Your task to perform on an android device: stop showing notifications on the lock screen Image 0: 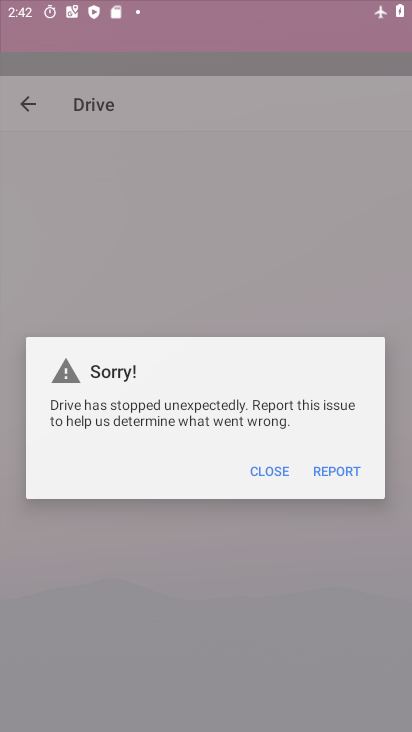
Step 0: click (301, 148)
Your task to perform on an android device: stop showing notifications on the lock screen Image 1: 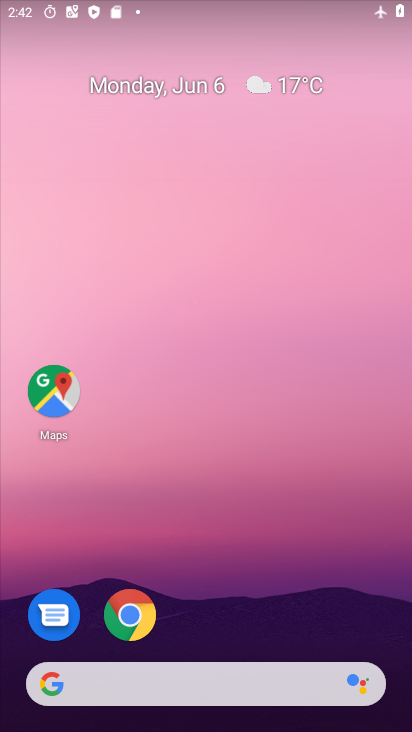
Step 1: drag from (193, 651) to (278, 104)
Your task to perform on an android device: stop showing notifications on the lock screen Image 2: 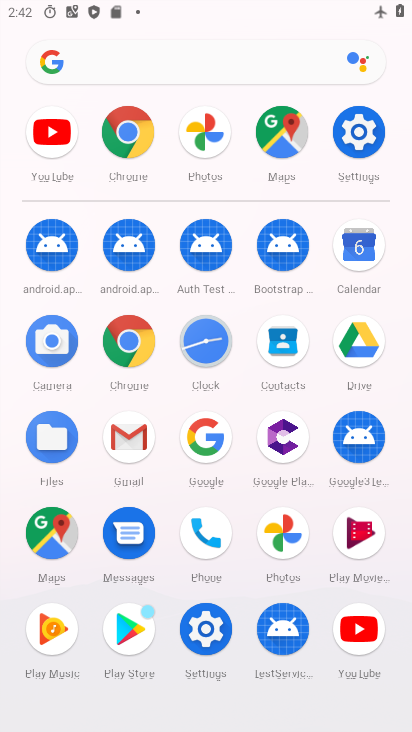
Step 2: click (206, 621)
Your task to perform on an android device: stop showing notifications on the lock screen Image 3: 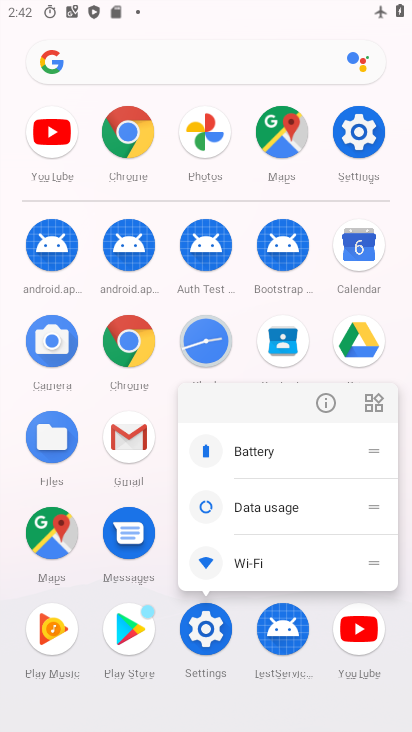
Step 3: click (325, 402)
Your task to perform on an android device: stop showing notifications on the lock screen Image 4: 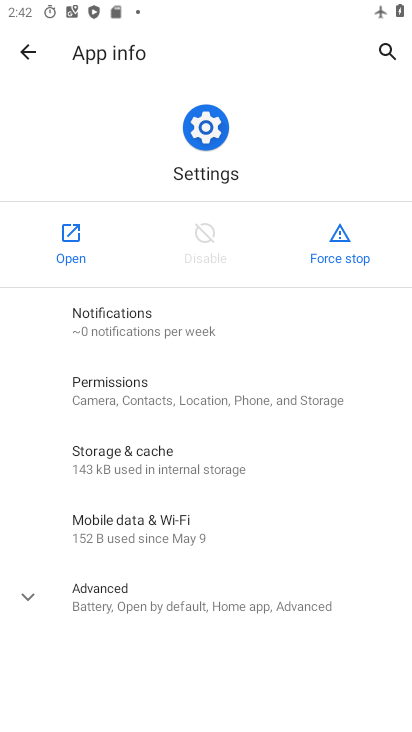
Step 4: click (62, 236)
Your task to perform on an android device: stop showing notifications on the lock screen Image 5: 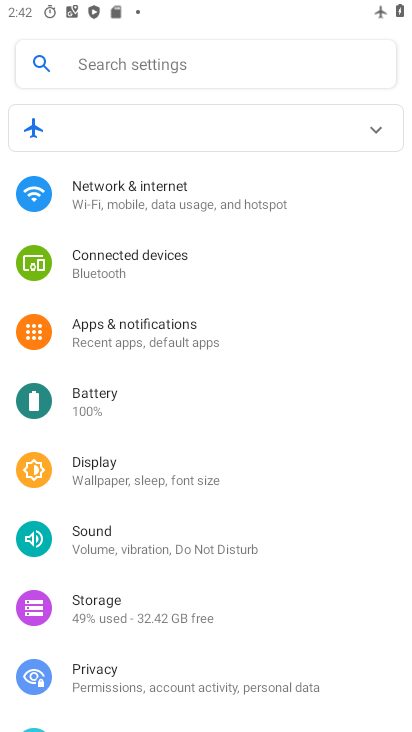
Step 5: click (176, 340)
Your task to perform on an android device: stop showing notifications on the lock screen Image 6: 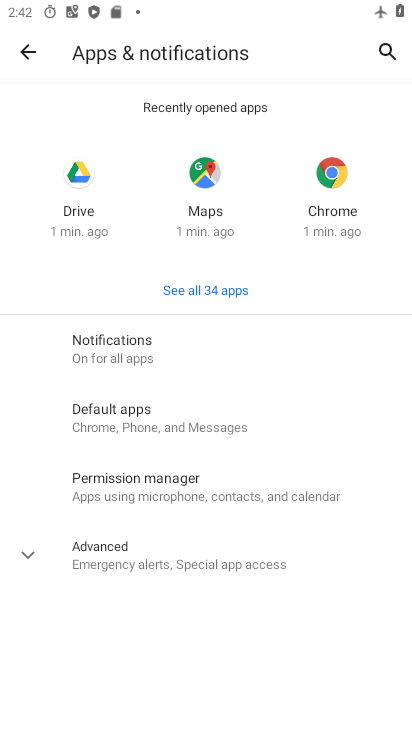
Step 6: click (137, 364)
Your task to perform on an android device: stop showing notifications on the lock screen Image 7: 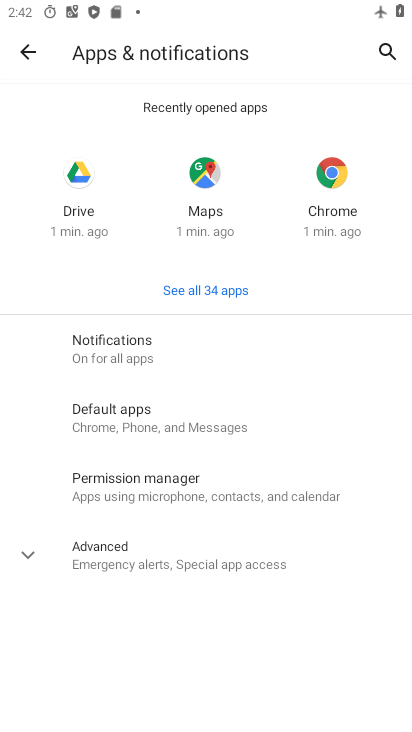
Step 7: click (137, 364)
Your task to perform on an android device: stop showing notifications on the lock screen Image 8: 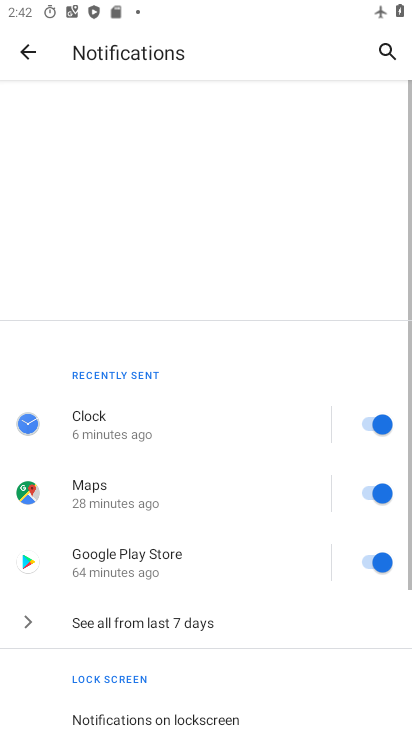
Step 8: drag from (252, 446) to (290, 82)
Your task to perform on an android device: stop showing notifications on the lock screen Image 9: 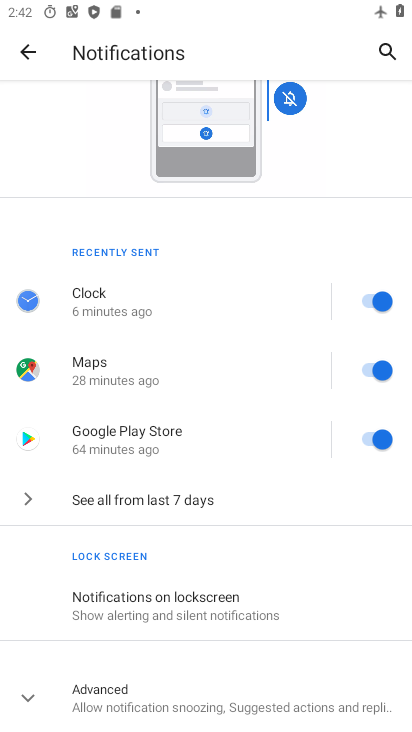
Step 9: click (219, 618)
Your task to perform on an android device: stop showing notifications on the lock screen Image 10: 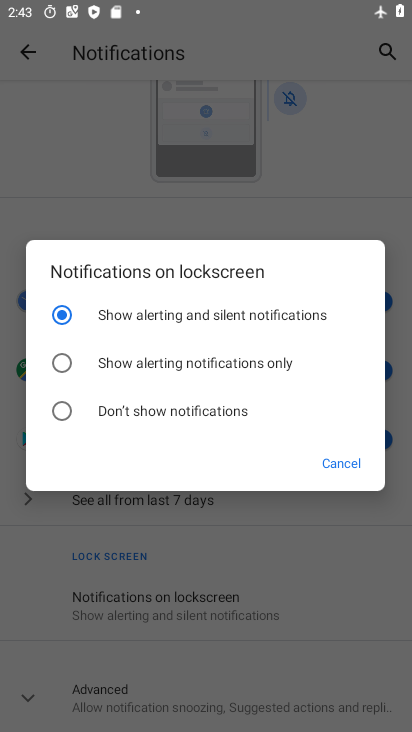
Step 10: drag from (204, 605) to (235, 265)
Your task to perform on an android device: stop showing notifications on the lock screen Image 11: 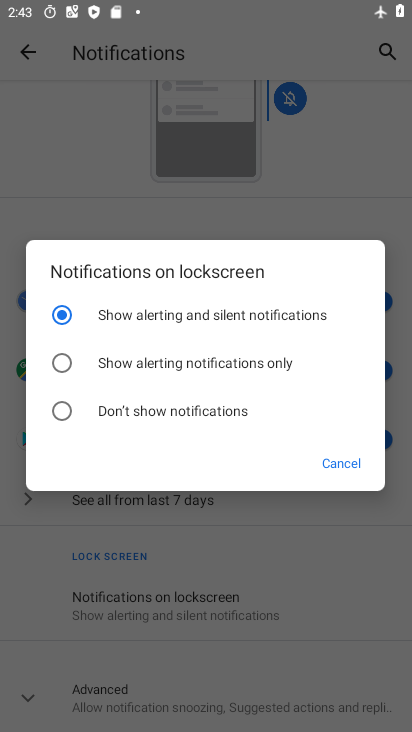
Step 11: click (59, 416)
Your task to perform on an android device: stop showing notifications on the lock screen Image 12: 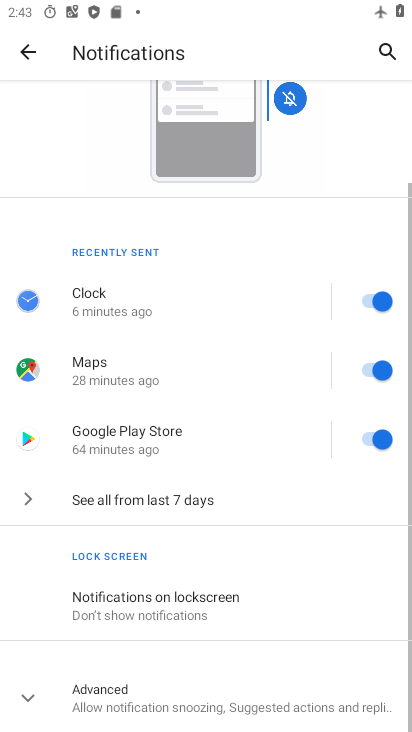
Step 12: task complete